Your task to perform on an android device: Go to CNN.com Image 0: 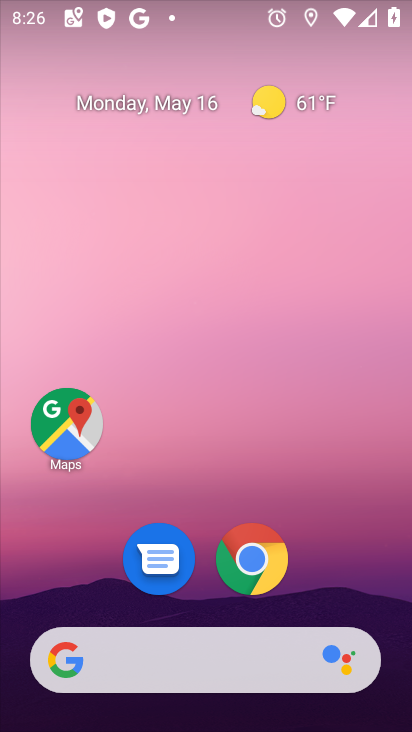
Step 0: drag from (355, 545) to (343, 141)
Your task to perform on an android device: Go to CNN.com Image 1: 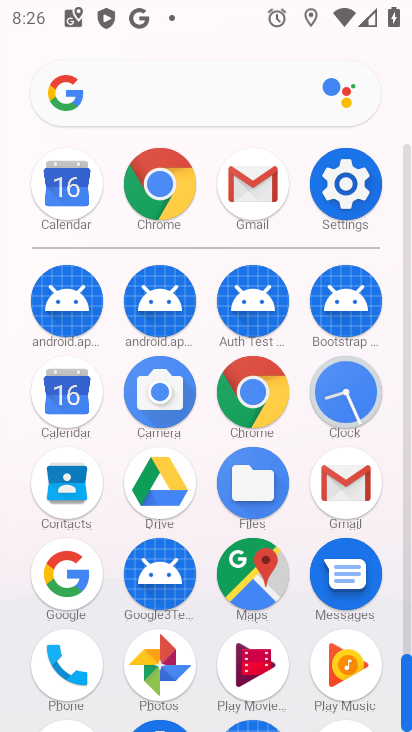
Step 1: click (254, 404)
Your task to perform on an android device: Go to CNN.com Image 2: 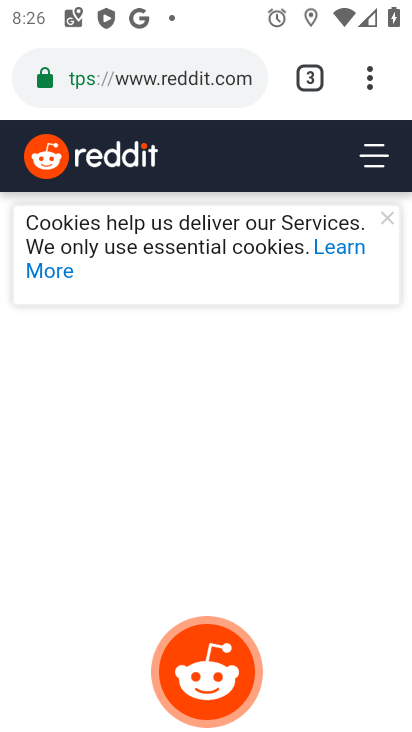
Step 2: click (197, 76)
Your task to perform on an android device: Go to CNN.com Image 3: 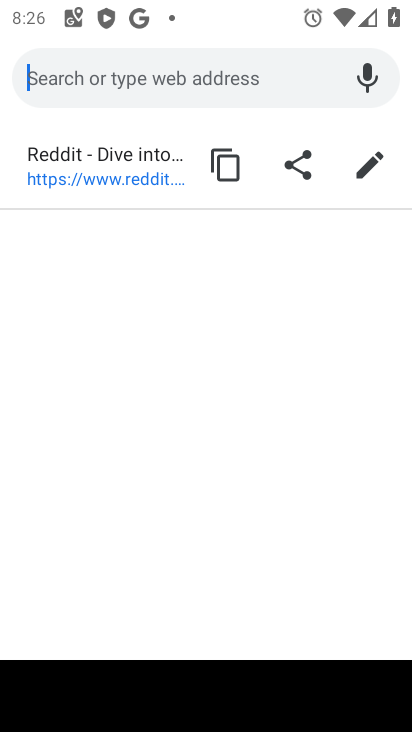
Step 3: type "cnn"
Your task to perform on an android device: Go to CNN.com Image 4: 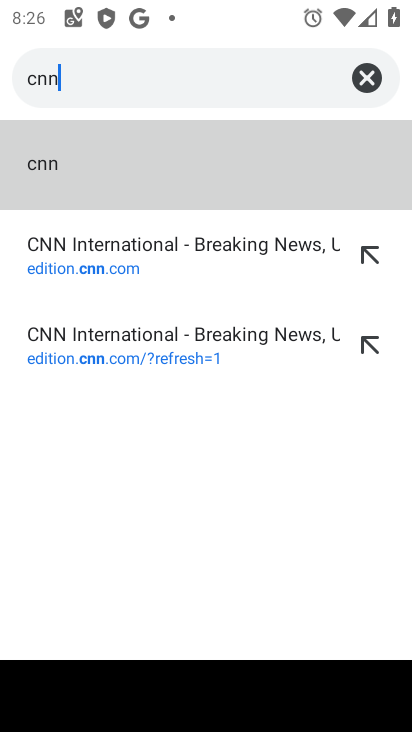
Step 4: click (108, 238)
Your task to perform on an android device: Go to CNN.com Image 5: 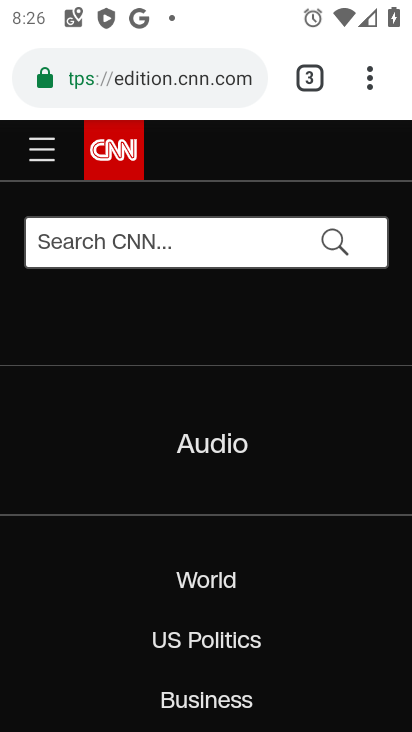
Step 5: task complete